Your task to perform on an android device: check storage Image 0: 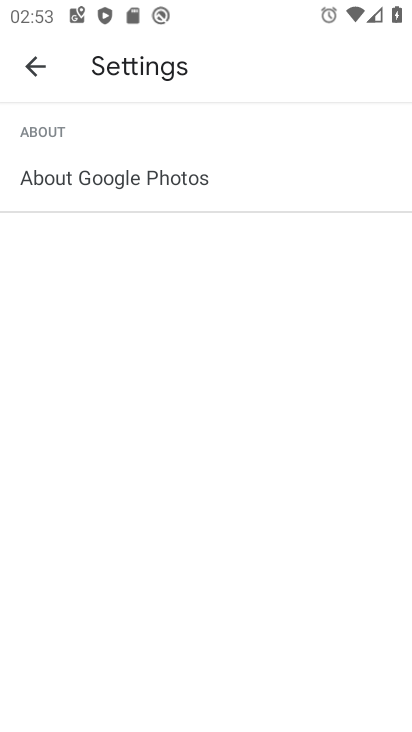
Step 0: press home button
Your task to perform on an android device: check storage Image 1: 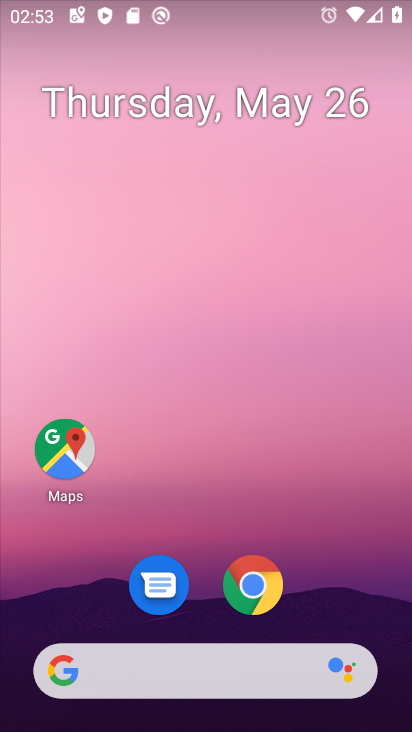
Step 1: drag from (294, 520) to (285, 80)
Your task to perform on an android device: check storage Image 2: 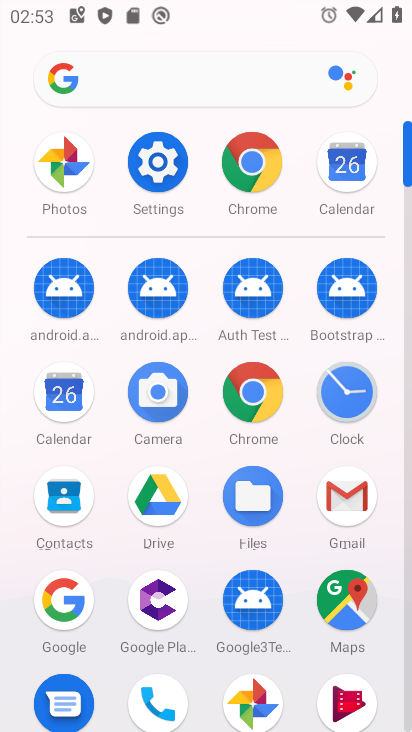
Step 2: click (172, 172)
Your task to perform on an android device: check storage Image 3: 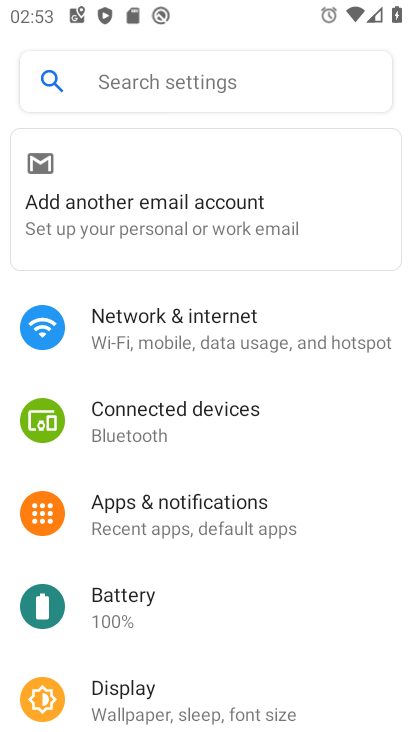
Step 3: drag from (209, 591) to (257, 225)
Your task to perform on an android device: check storage Image 4: 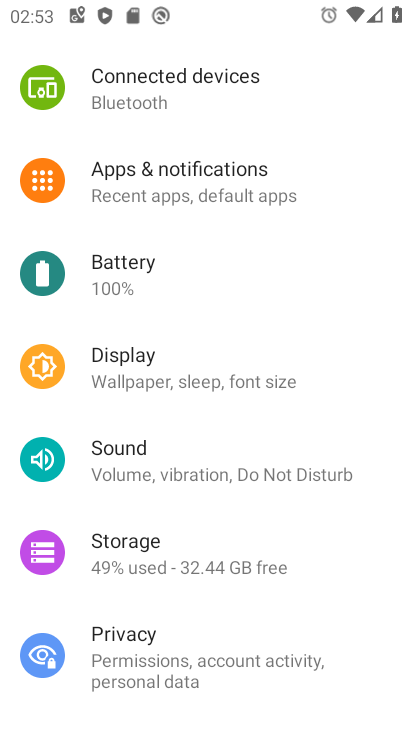
Step 4: click (228, 541)
Your task to perform on an android device: check storage Image 5: 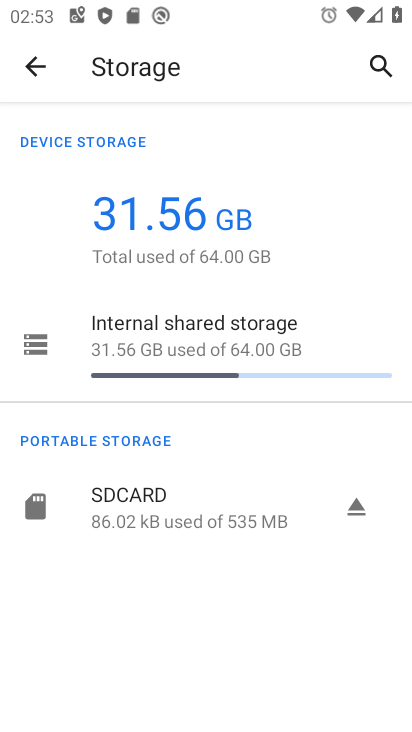
Step 5: task complete